Your task to perform on an android device: Open eBay Image 0: 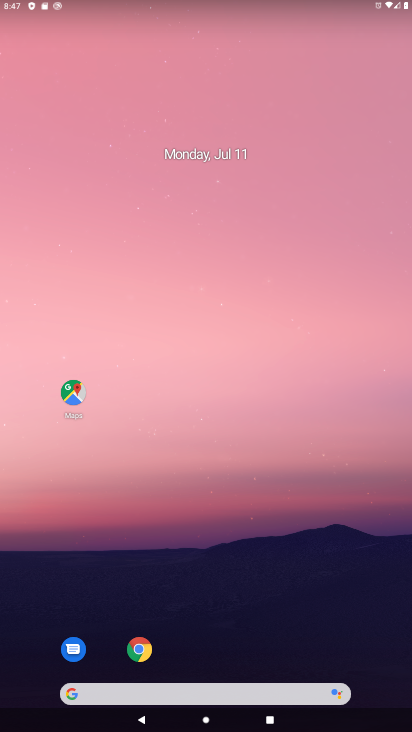
Step 0: click (139, 650)
Your task to perform on an android device: Open eBay Image 1: 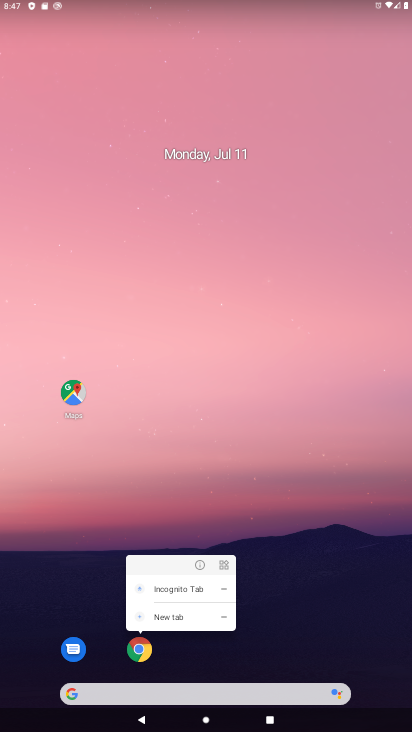
Step 1: click (136, 650)
Your task to perform on an android device: Open eBay Image 2: 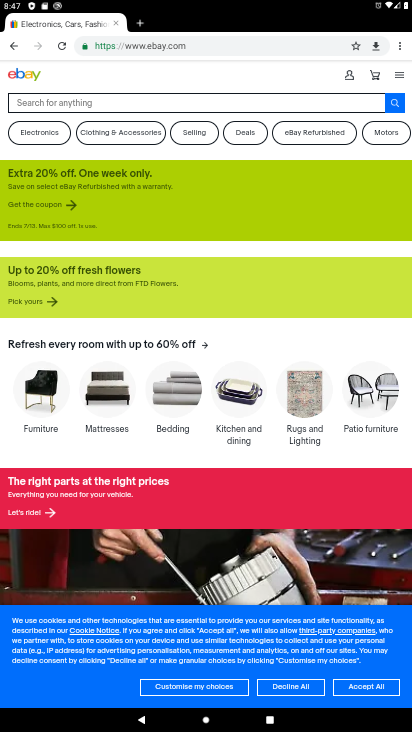
Step 2: click (191, 39)
Your task to perform on an android device: Open eBay Image 3: 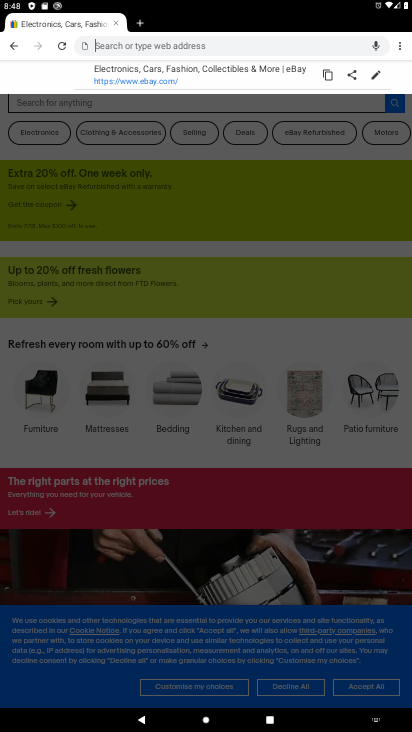
Step 3: type "eBay"
Your task to perform on an android device: Open eBay Image 4: 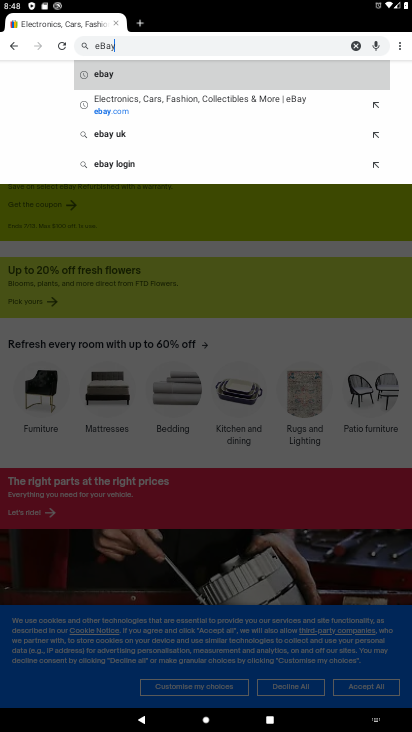
Step 4: click (107, 74)
Your task to perform on an android device: Open eBay Image 5: 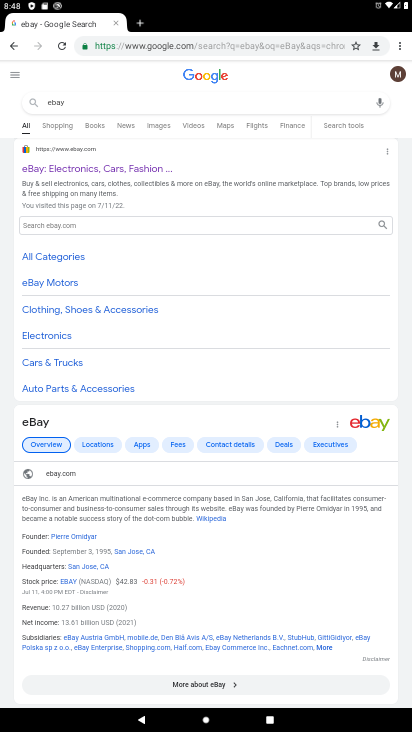
Step 5: click (54, 168)
Your task to perform on an android device: Open eBay Image 6: 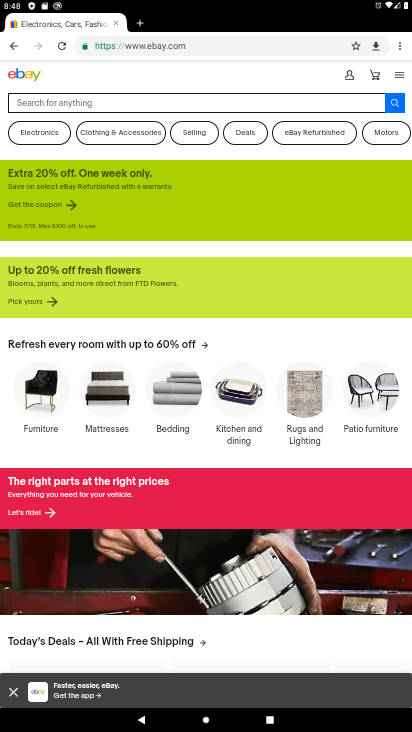
Step 6: task complete